Your task to perform on an android device: turn off wifi Image 0: 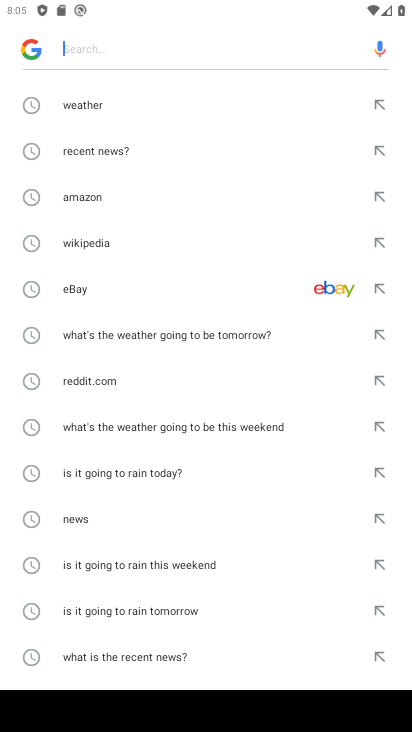
Step 0: press home button
Your task to perform on an android device: turn off wifi Image 1: 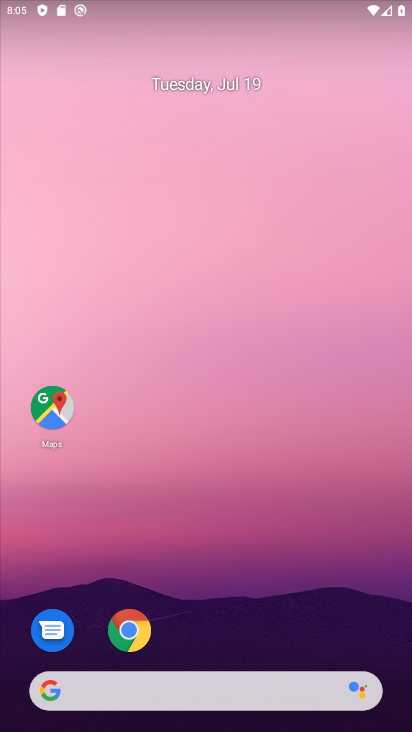
Step 1: drag from (208, 675) to (251, 279)
Your task to perform on an android device: turn off wifi Image 2: 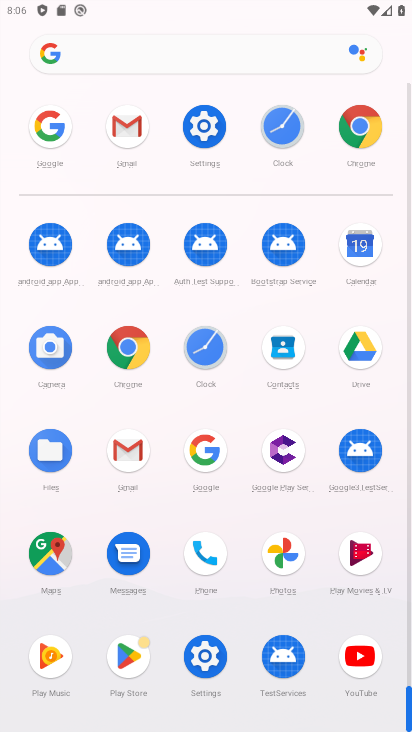
Step 2: click (209, 150)
Your task to perform on an android device: turn off wifi Image 3: 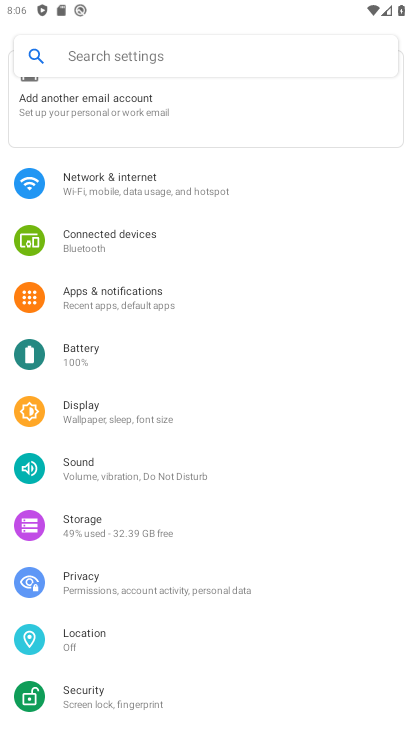
Step 3: click (197, 169)
Your task to perform on an android device: turn off wifi Image 4: 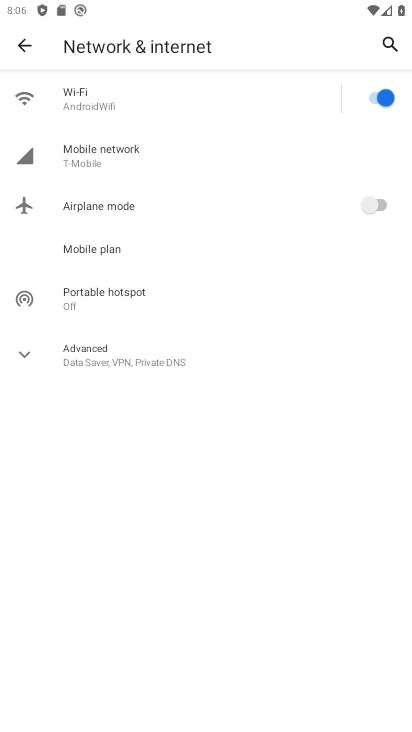
Step 4: click (368, 96)
Your task to perform on an android device: turn off wifi Image 5: 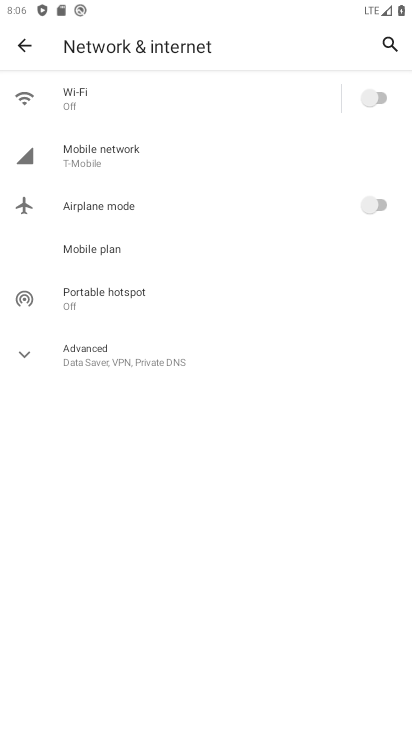
Step 5: task complete